Your task to perform on an android device: Go to network settings Image 0: 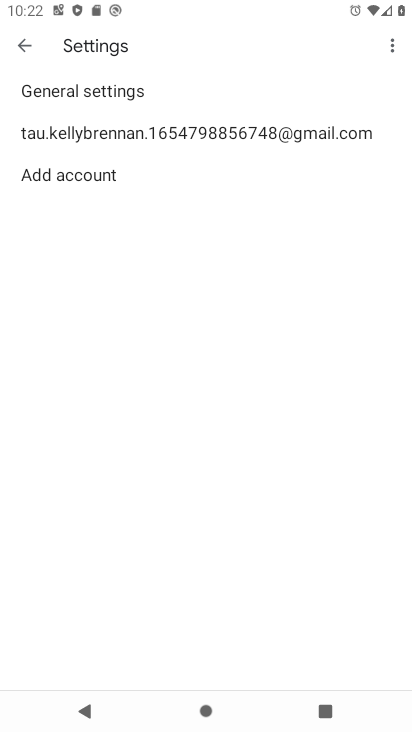
Step 0: drag from (157, 3) to (151, 278)
Your task to perform on an android device: Go to network settings Image 1: 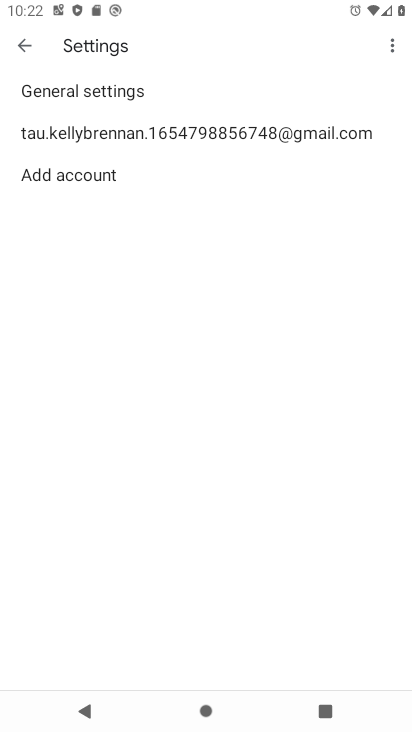
Step 1: drag from (247, 14) to (189, 690)
Your task to perform on an android device: Go to network settings Image 2: 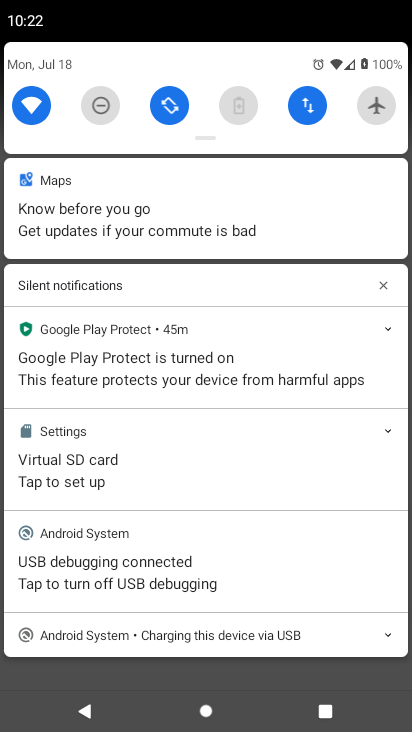
Step 2: click (308, 96)
Your task to perform on an android device: Go to network settings Image 3: 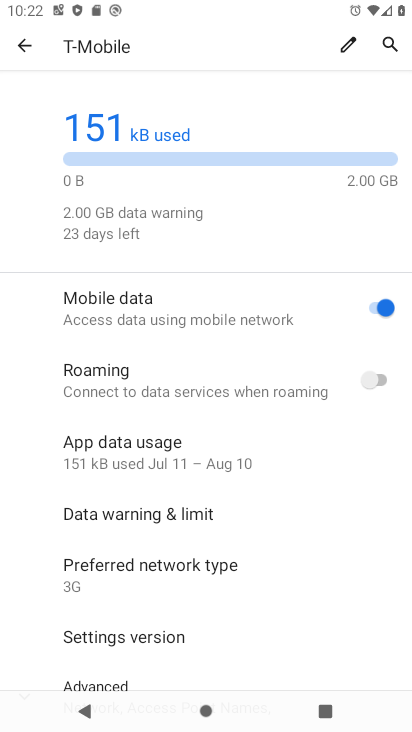
Step 3: task complete